Your task to perform on an android device: turn vacation reply on in the gmail app Image 0: 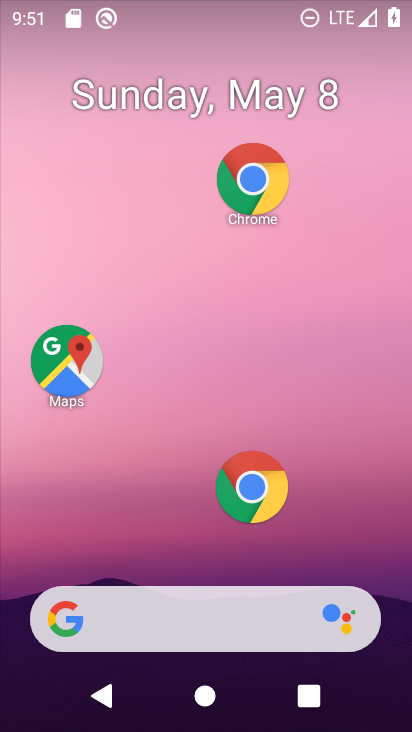
Step 0: drag from (208, 515) to (224, 0)
Your task to perform on an android device: turn vacation reply on in the gmail app Image 1: 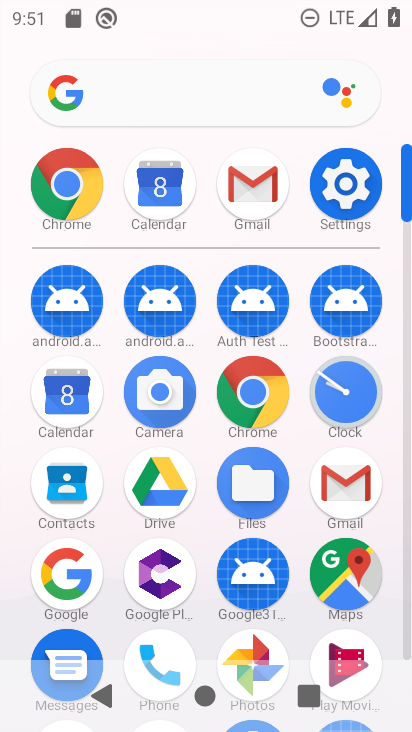
Step 1: click (254, 203)
Your task to perform on an android device: turn vacation reply on in the gmail app Image 2: 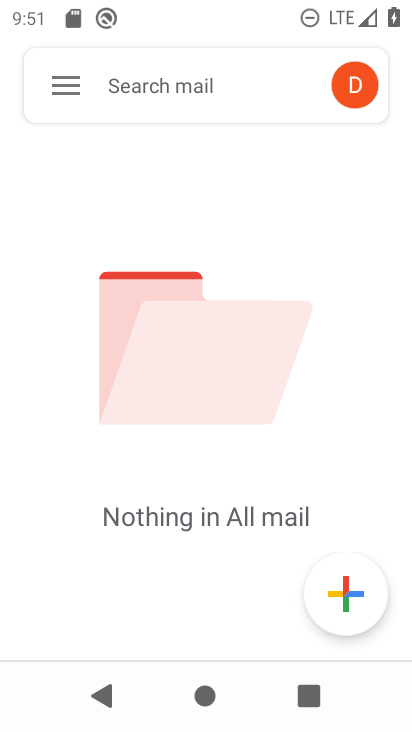
Step 2: click (71, 88)
Your task to perform on an android device: turn vacation reply on in the gmail app Image 3: 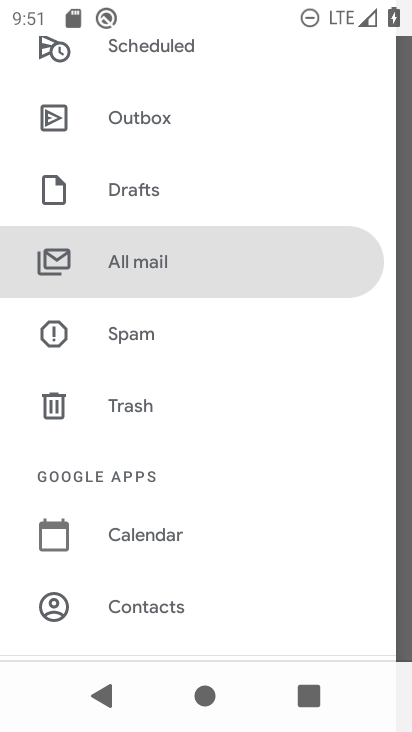
Step 3: drag from (214, 524) to (264, 121)
Your task to perform on an android device: turn vacation reply on in the gmail app Image 4: 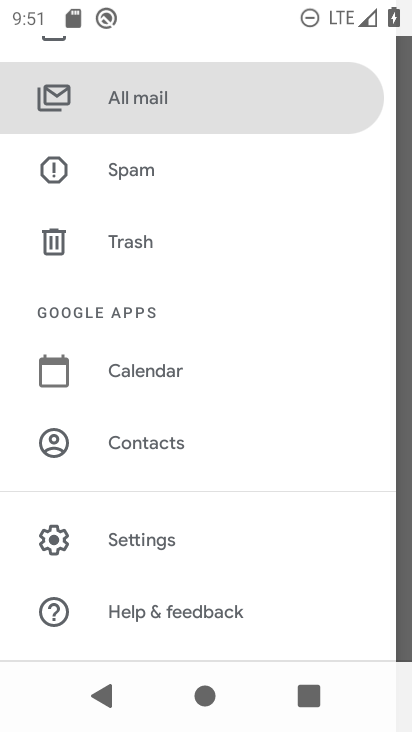
Step 4: click (145, 522)
Your task to perform on an android device: turn vacation reply on in the gmail app Image 5: 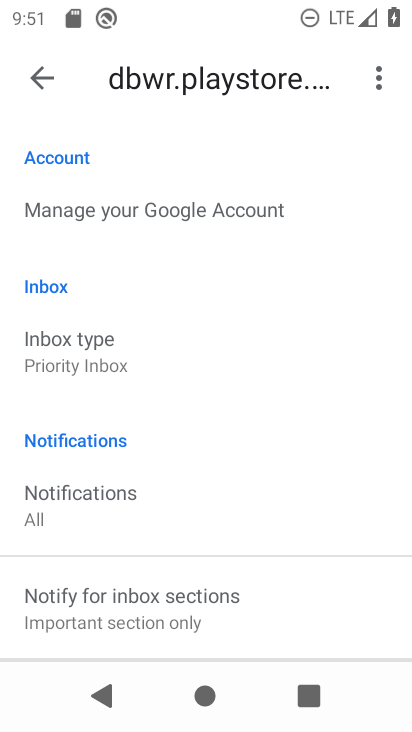
Step 5: drag from (259, 514) to (329, 123)
Your task to perform on an android device: turn vacation reply on in the gmail app Image 6: 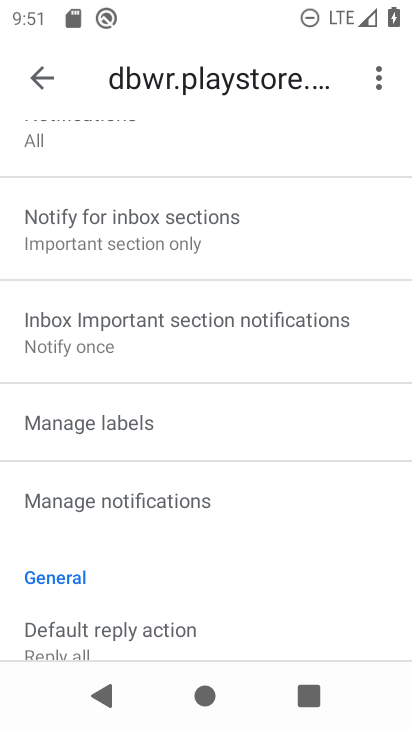
Step 6: drag from (246, 518) to (267, 137)
Your task to perform on an android device: turn vacation reply on in the gmail app Image 7: 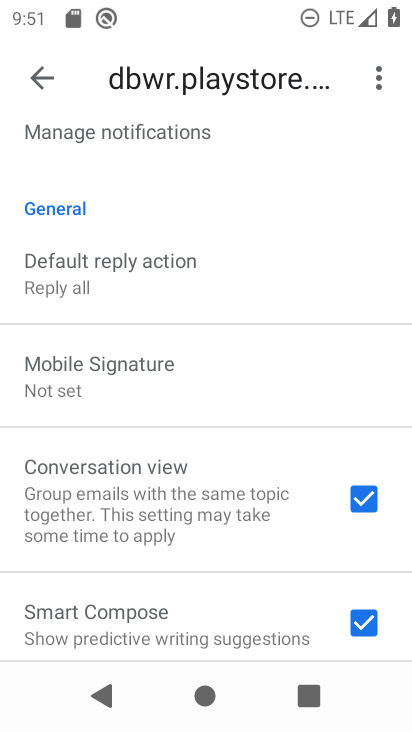
Step 7: drag from (216, 568) to (251, 160)
Your task to perform on an android device: turn vacation reply on in the gmail app Image 8: 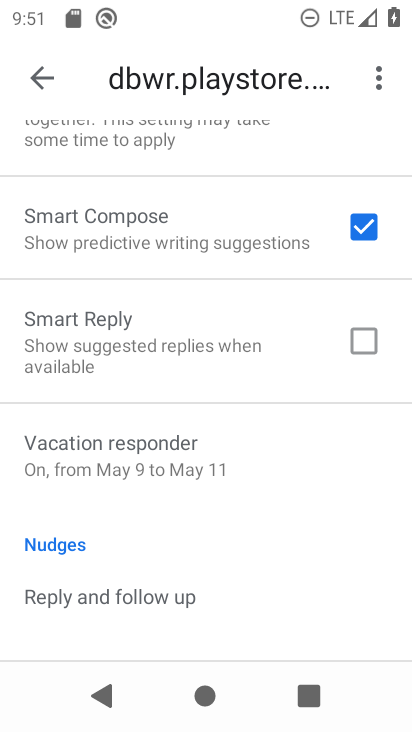
Step 8: click (178, 442)
Your task to perform on an android device: turn vacation reply on in the gmail app Image 9: 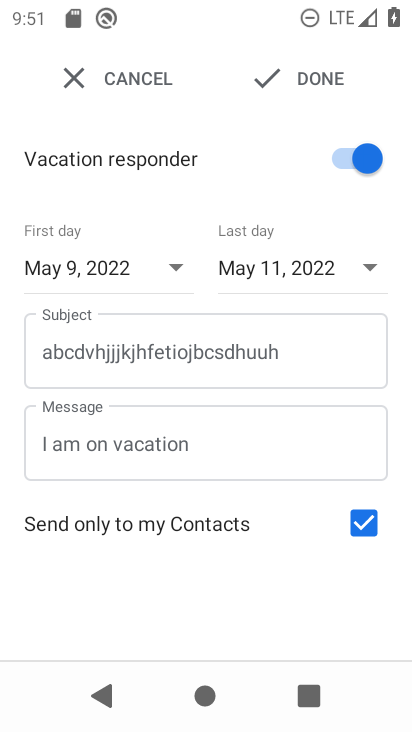
Step 9: task complete